Your task to perform on an android device: Go to Google Image 0: 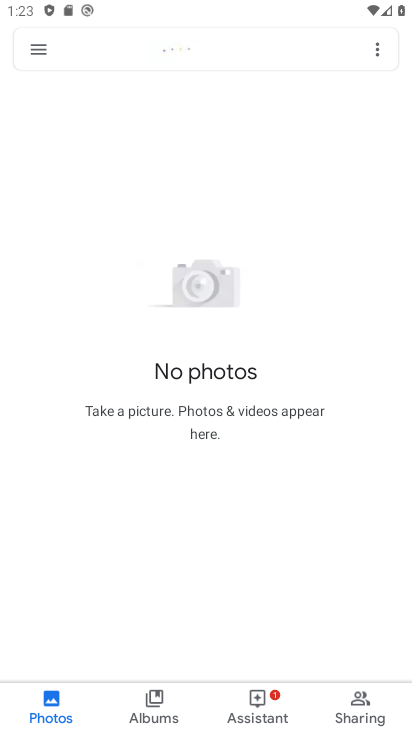
Step 0: press home button
Your task to perform on an android device: Go to Google Image 1: 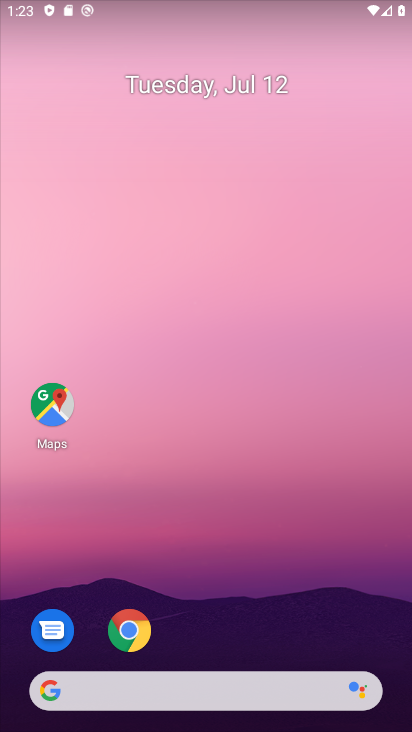
Step 1: click (128, 632)
Your task to perform on an android device: Go to Google Image 2: 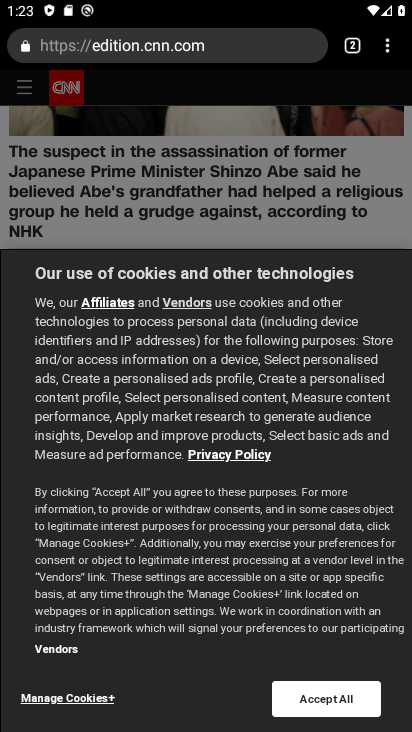
Step 2: task complete